Your task to perform on an android device: Open wifi settings Image 0: 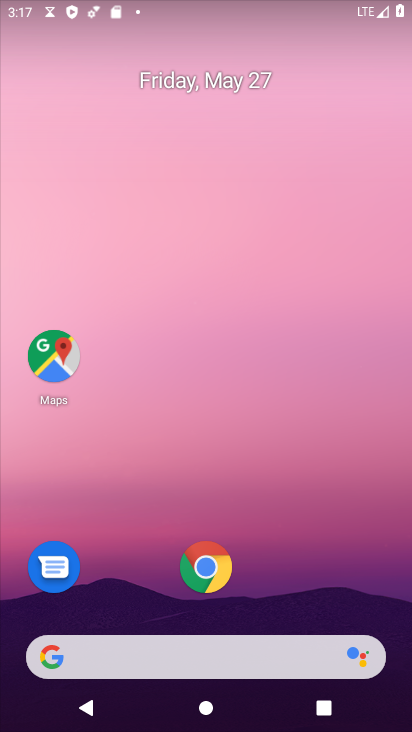
Step 0: drag from (165, 555) to (236, 98)
Your task to perform on an android device: Open wifi settings Image 1: 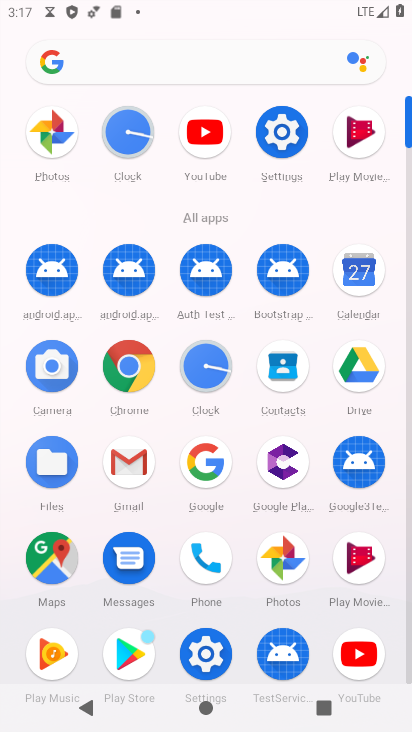
Step 1: drag from (89, 10) to (140, 595)
Your task to perform on an android device: Open wifi settings Image 2: 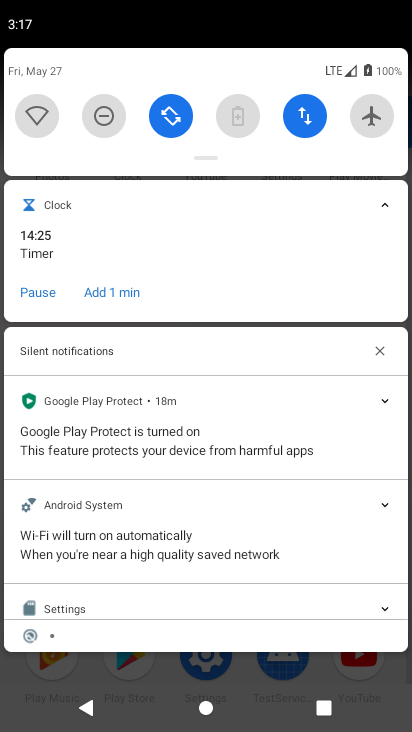
Step 2: click (34, 114)
Your task to perform on an android device: Open wifi settings Image 3: 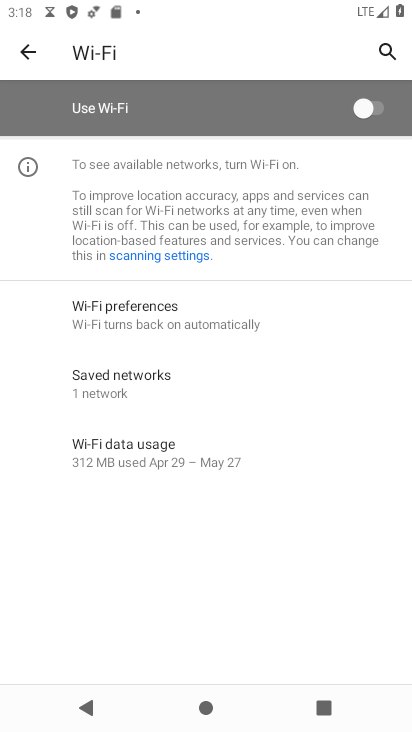
Step 3: task complete